Your task to perform on an android device: turn on priority inbox in the gmail app Image 0: 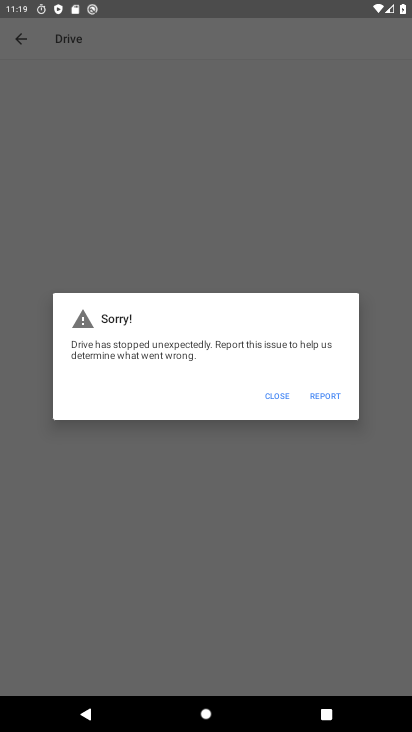
Step 0: press home button
Your task to perform on an android device: turn on priority inbox in the gmail app Image 1: 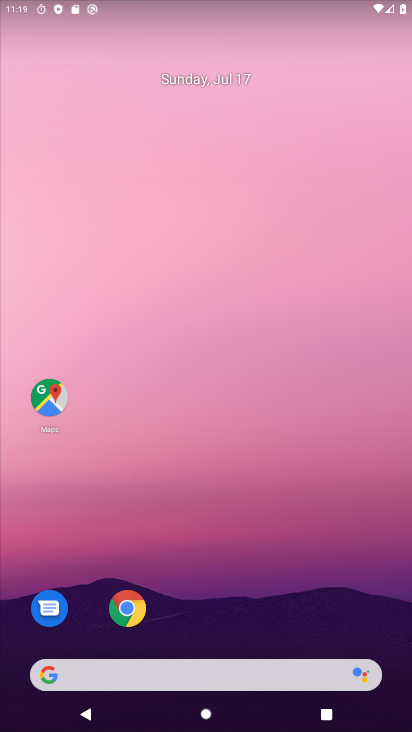
Step 1: drag from (232, 606) to (264, 177)
Your task to perform on an android device: turn on priority inbox in the gmail app Image 2: 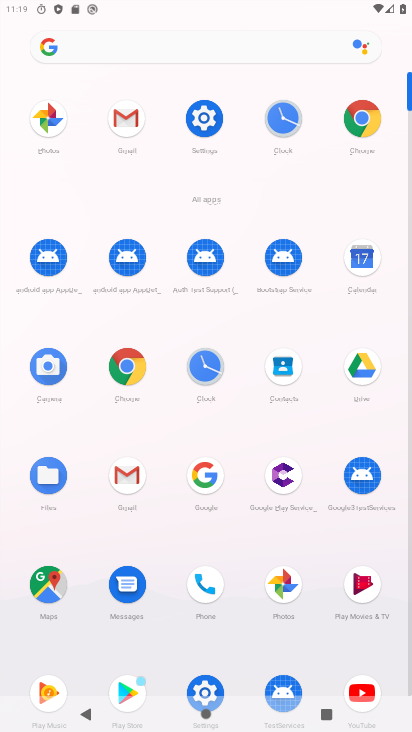
Step 2: click (128, 113)
Your task to perform on an android device: turn on priority inbox in the gmail app Image 3: 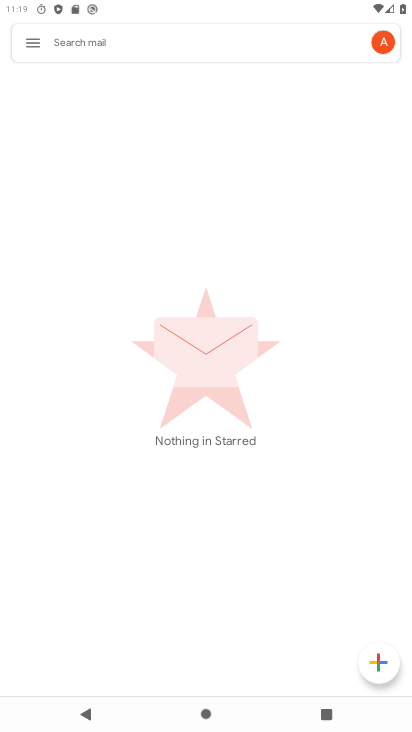
Step 3: click (26, 51)
Your task to perform on an android device: turn on priority inbox in the gmail app Image 4: 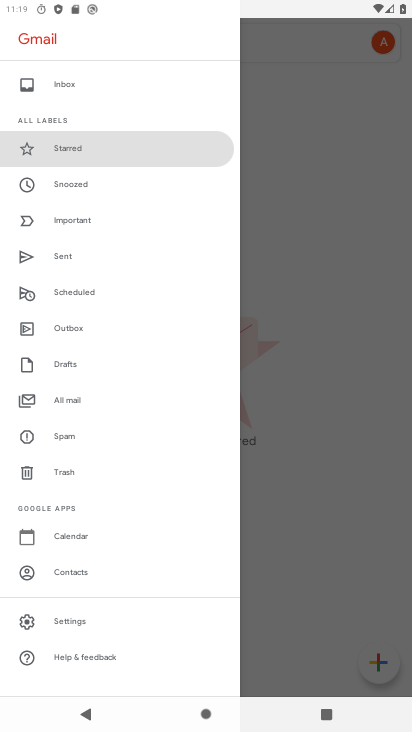
Step 4: click (76, 624)
Your task to perform on an android device: turn on priority inbox in the gmail app Image 5: 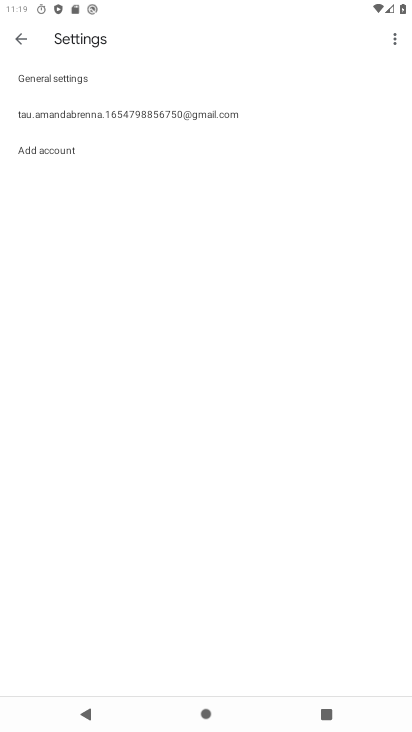
Step 5: click (137, 110)
Your task to perform on an android device: turn on priority inbox in the gmail app Image 6: 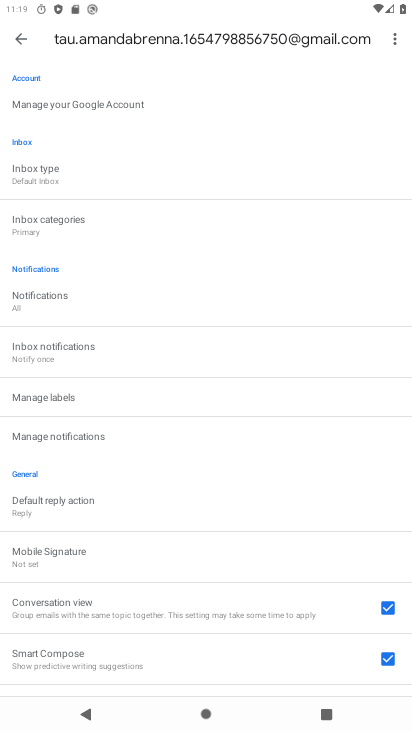
Step 6: click (64, 187)
Your task to perform on an android device: turn on priority inbox in the gmail app Image 7: 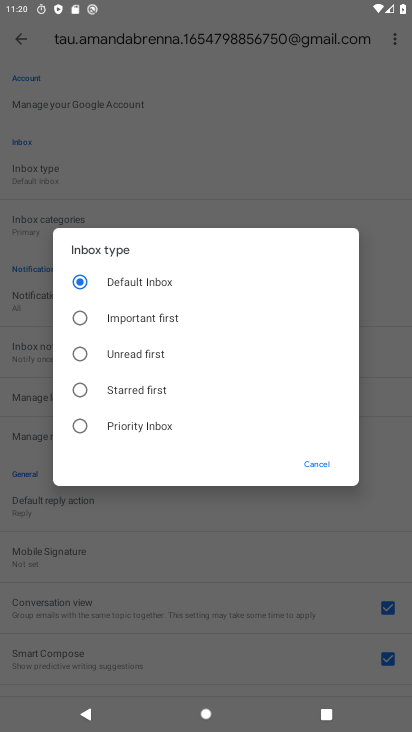
Step 7: click (101, 420)
Your task to perform on an android device: turn on priority inbox in the gmail app Image 8: 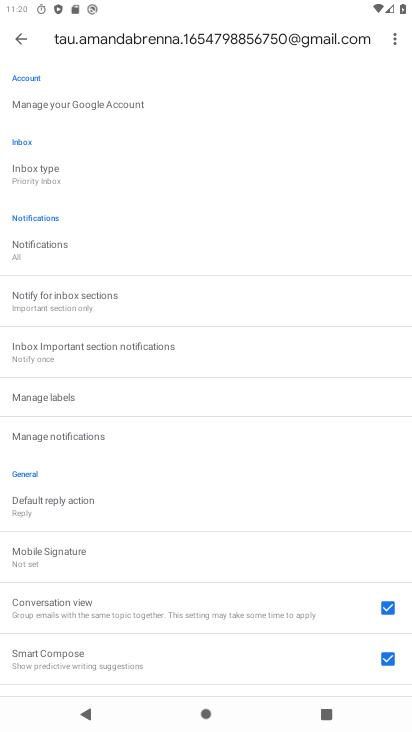
Step 8: task complete